Your task to perform on an android device: Go to Yahoo.com Image 0: 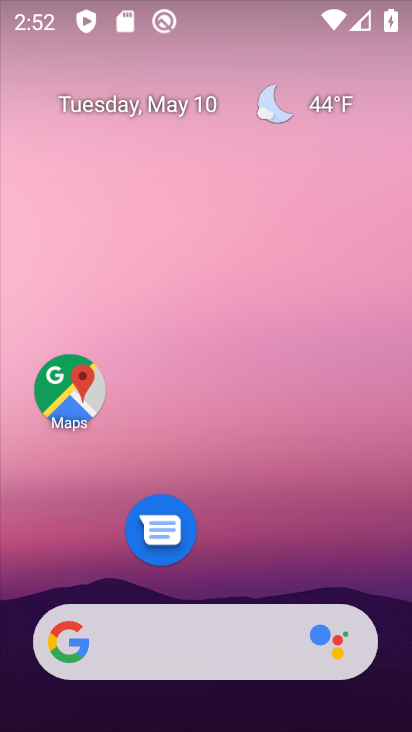
Step 0: drag from (269, 559) to (258, 137)
Your task to perform on an android device: Go to Yahoo.com Image 1: 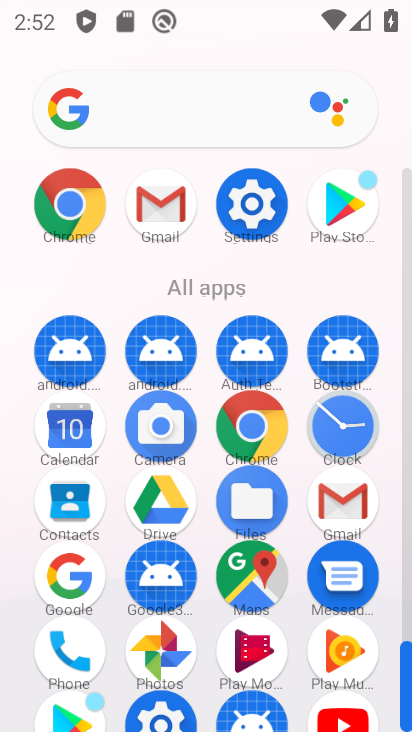
Step 1: click (257, 430)
Your task to perform on an android device: Go to Yahoo.com Image 2: 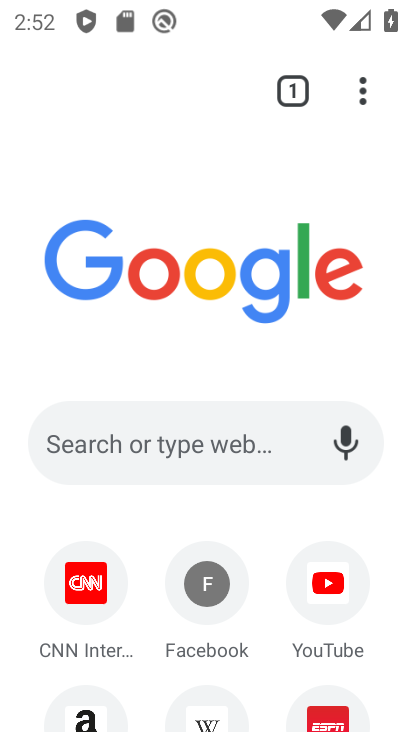
Step 2: drag from (267, 576) to (251, 392)
Your task to perform on an android device: Go to Yahoo.com Image 3: 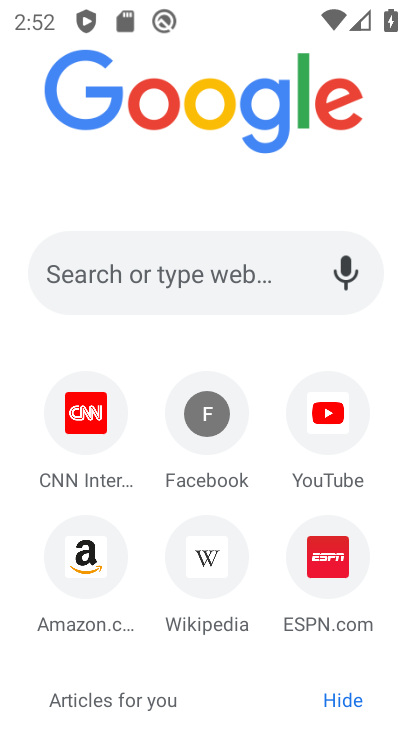
Step 3: click (149, 281)
Your task to perform on an android device: Go to Yahoo.com Image 4: 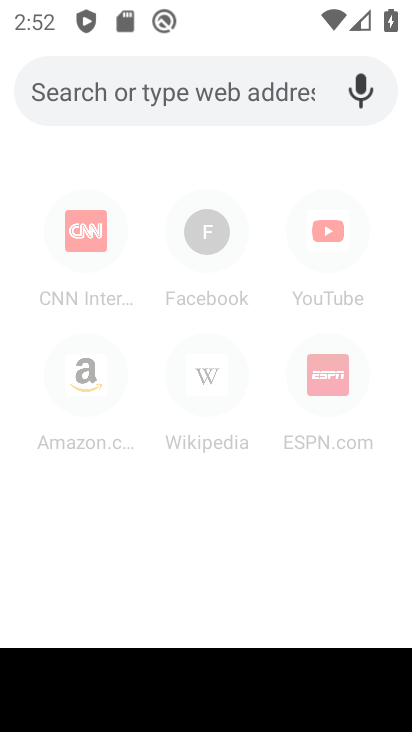
Step 4: type "yahoo.com"
Your task to perform on an android device: Go to Yahoo.com Image 5: 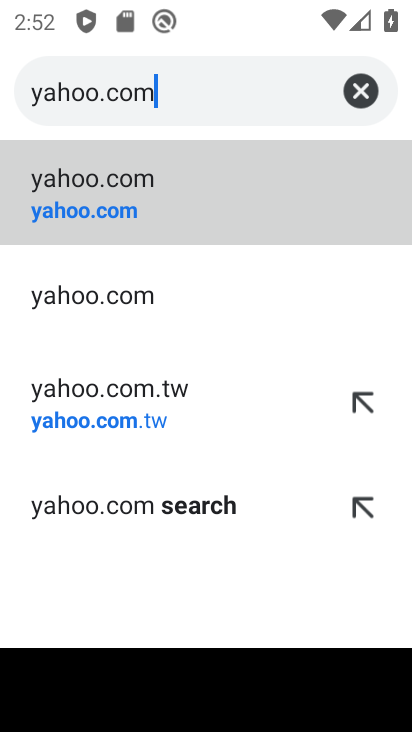
Step 5: click (201, 197)
Your task to perform on an android device: Go to Yahoo.com Image 6: 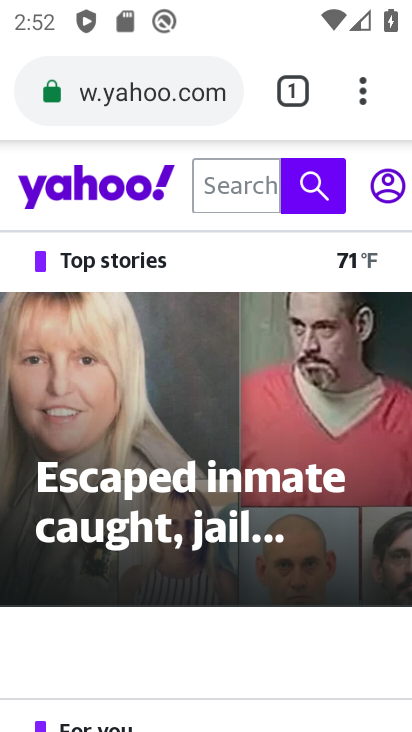
Step 6: task complete